Your task to perform on an android device: remove spam from my inbox in the gmail app Image 0: 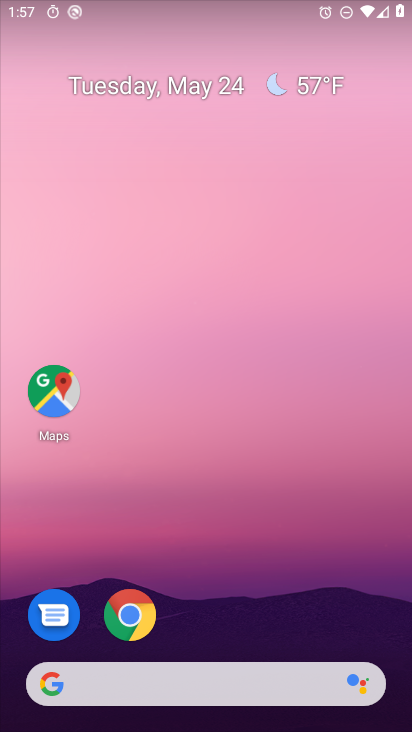
Step 0: drag from (179, 663) to (153, 297)
Your task to perform on an android device: remove spam from my inbox in the gmail app Image 1: 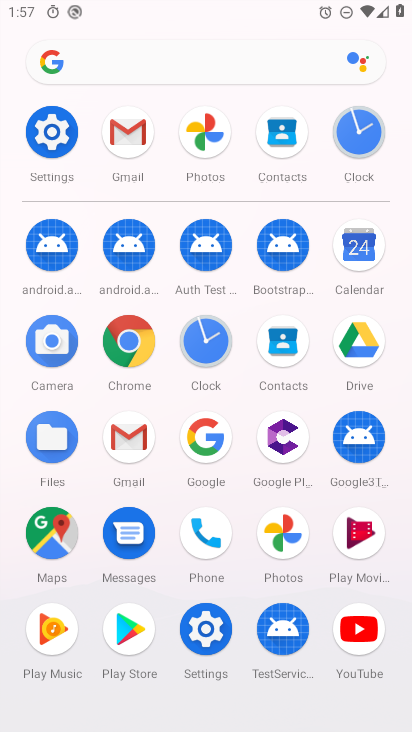
Step 1: click (123, 450)
Your task to perform on an android device: remove spam from my inbox in the gmail app Image 2: 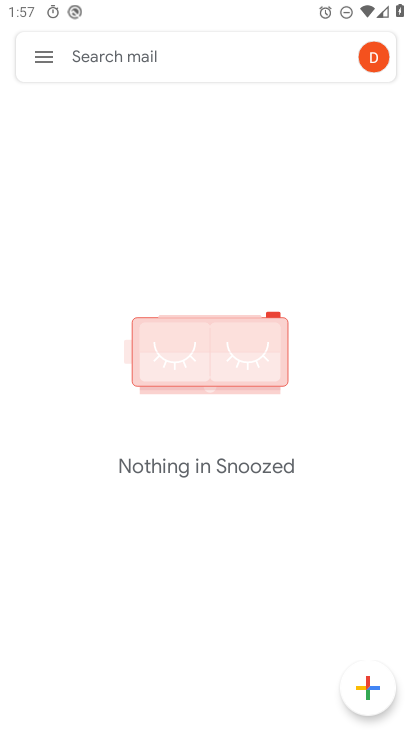
Step 2: click (39, 62)
Your task to perform on an android device: remove spam from my inbox in the gmail app Image 3: 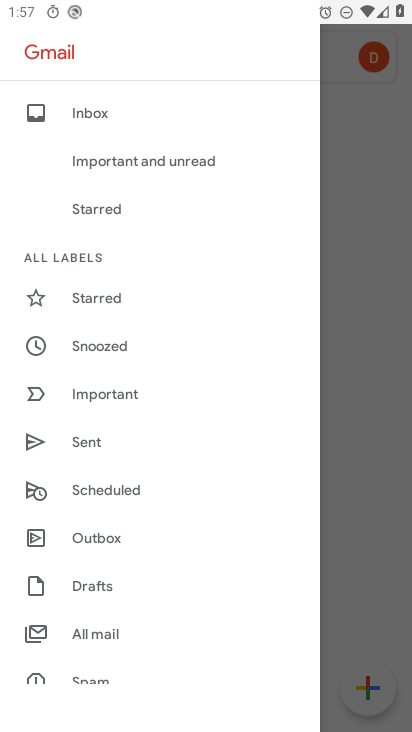
Step 3: drag from (111, 671) to (158, 289)
Your task to perform on an android device: remove spam from my inbox in the gmail app Image 4: 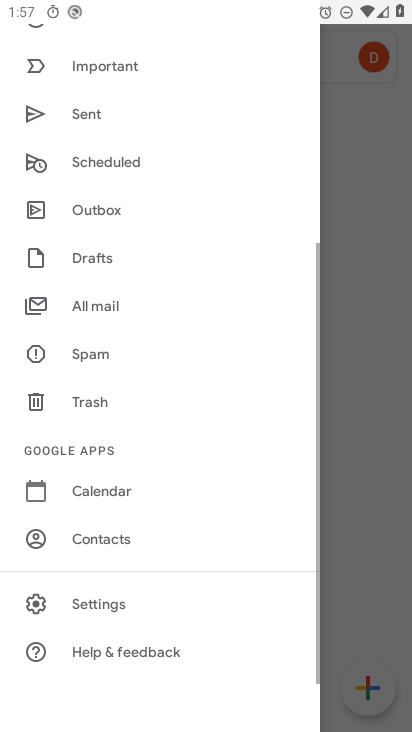
Step 4: click (74, 361)
Your task to perform on an android device: remove spam from my inbox in the gmail app Image 5: 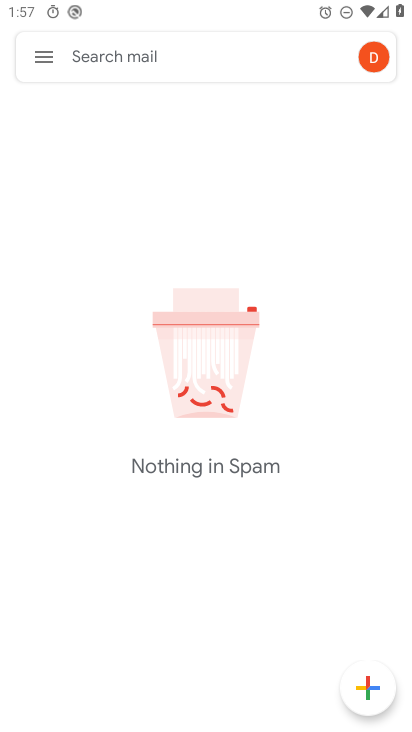
Step 5: task complete